Your task to perform on an android device: change notification settings in the gmail app Image 0: 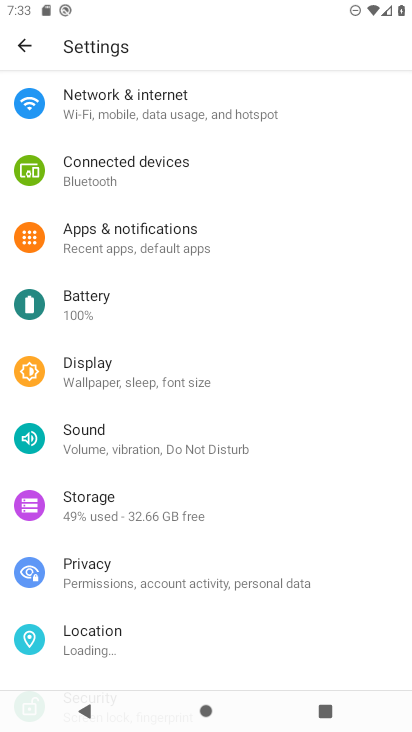
Step 0: press home button
Your task to perform on an android device: change notification settings in the gmail app Image 1: 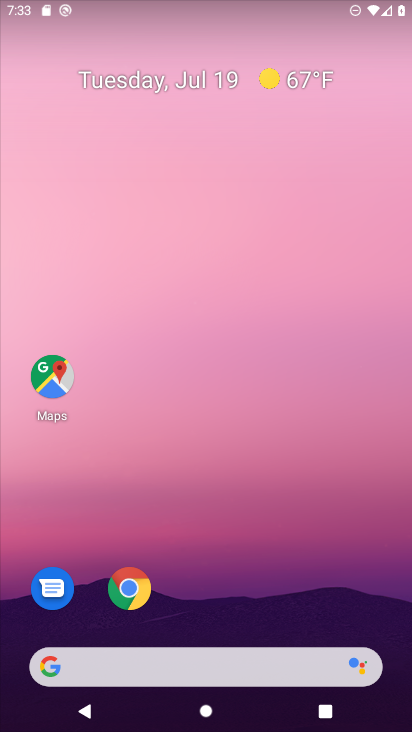
Step 1: drag from (356, 589) to (373, 82)
Your task to perform on an android device: change notification settings in the gmail app Image 2: 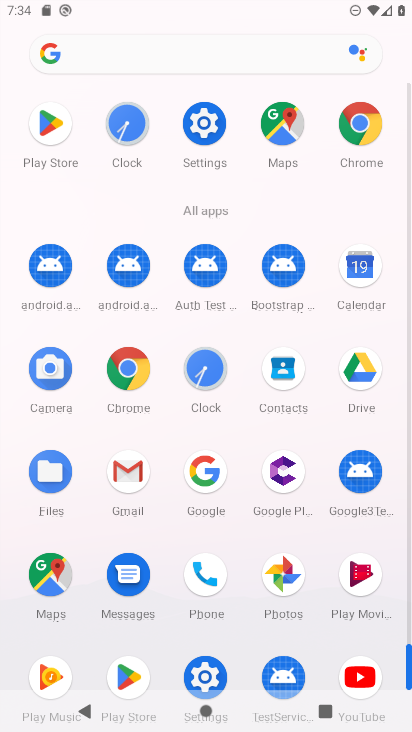
Step 2: click (129, 470)
Your task to perform on an android device: change notification settings in the gmail app Image 3: 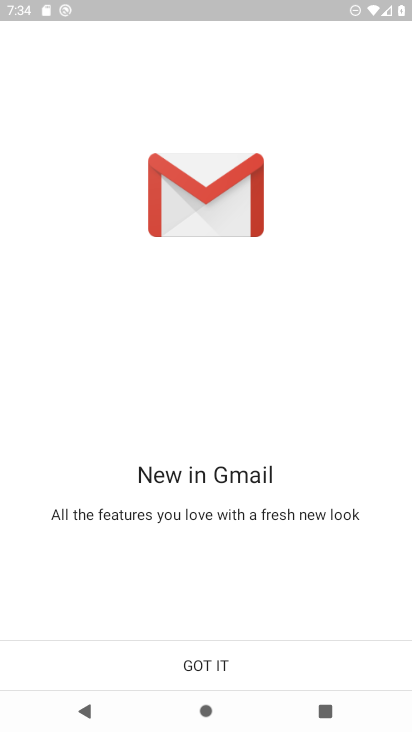
Step 3: click (191, 665)
Your task to perform on an android device: change notification settings in the gmail app Image 4: 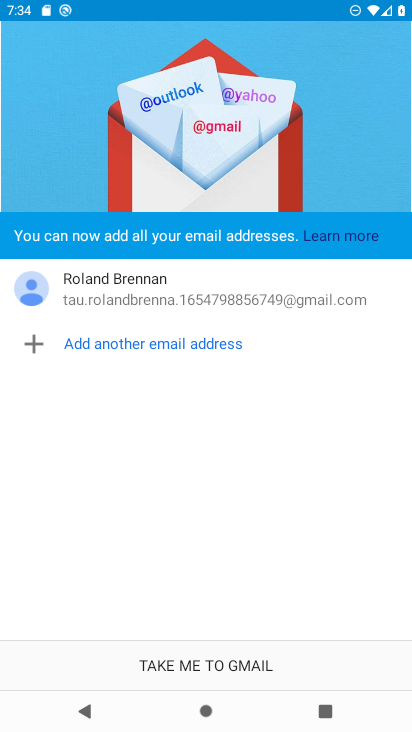
Step 4: click (191, 665)
Your task to perform on an android device: change notification settings in the gmail app Image 5: 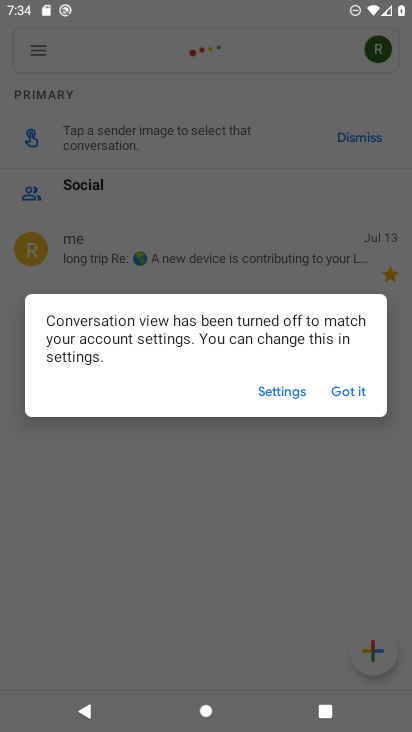
Step 5: click (351, 394)
Your task to perform on an android device: change notification settings in the gmail app Image 6: 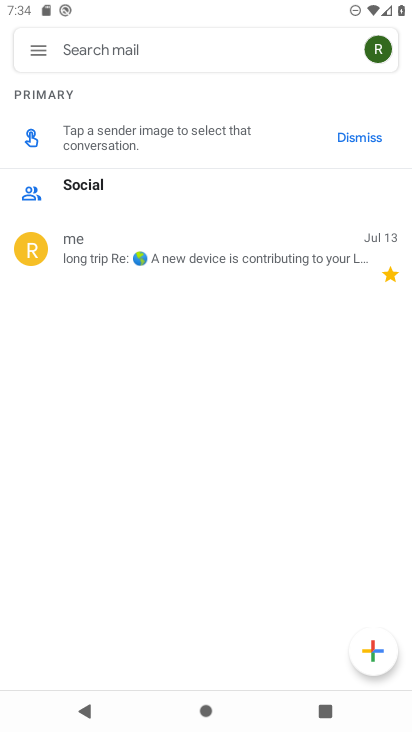
Step 6: click (38, 51)
Your task to perform on an android device: change notification settings in the gmail app Image 7: 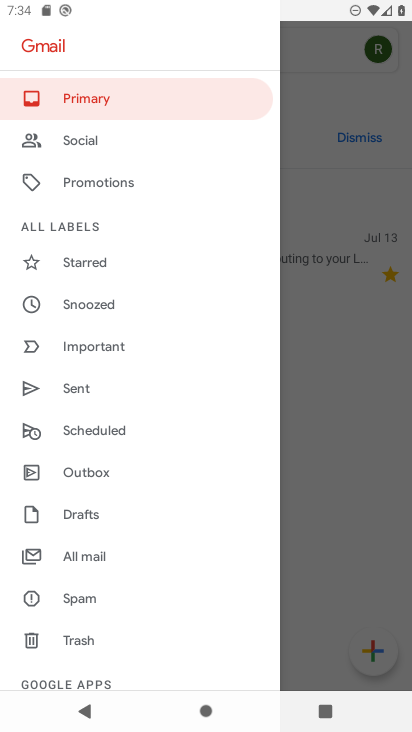
Step 7: drag from (195, 358) to (199, 312)
Your task to perform on an android device: change notification settings in the gmail app Image 8: 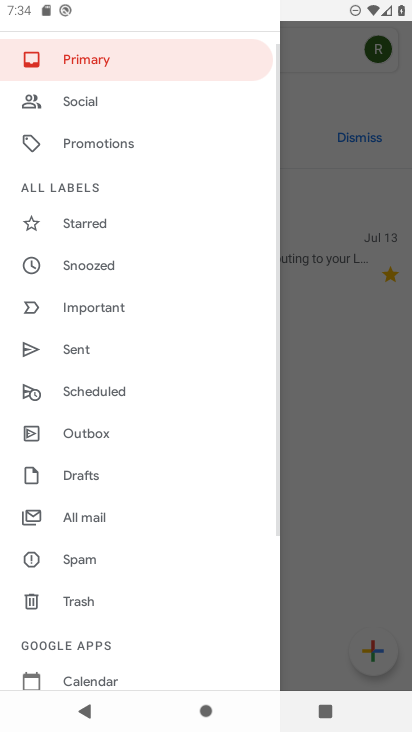
Step 8: drag from (186, 416) to (201, 328)
Your task to perform on an android device: change notification settings in the gmail app Image 9: 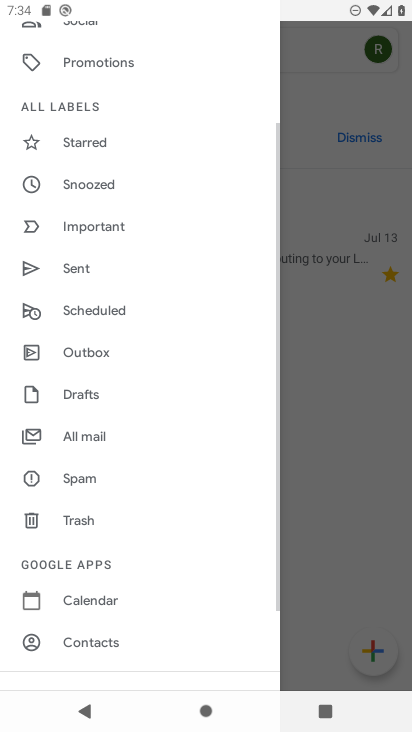
Step 9: drag from (195, 429) to (200, 343)
Your task to perform on an android device: change notification settings in the gmail app Image 10: 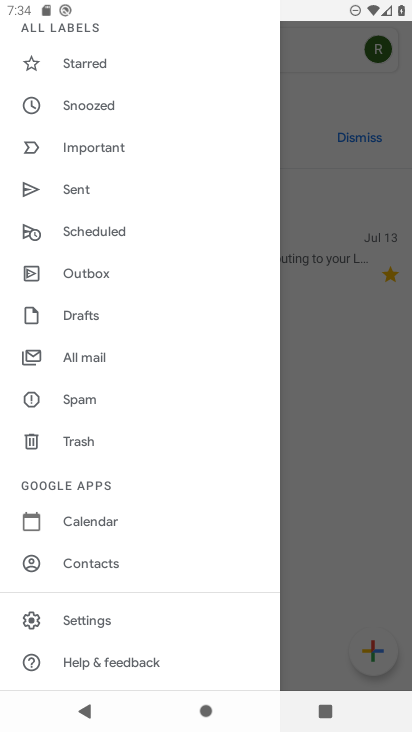
Step 10: click (172, 619)
Your task to perform on an android device: change notification settings in the gmail app Image 11: 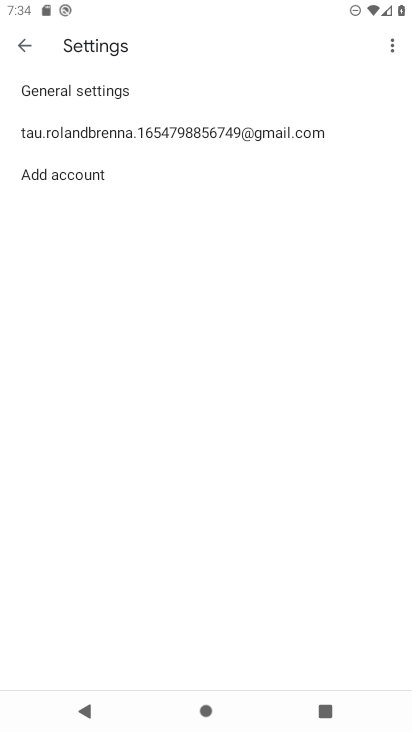
Step 11: click (254, 139)
Your task to perform on an android device: change notification settings in the gmail app Image 12: 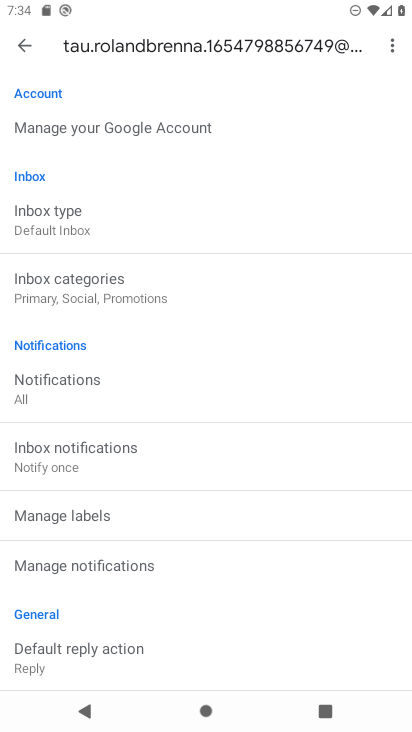
Step 12: drag from (295, 393) to (321, 219)
Your task to perform on an android device: change notification settings in the gmail app Image 13: 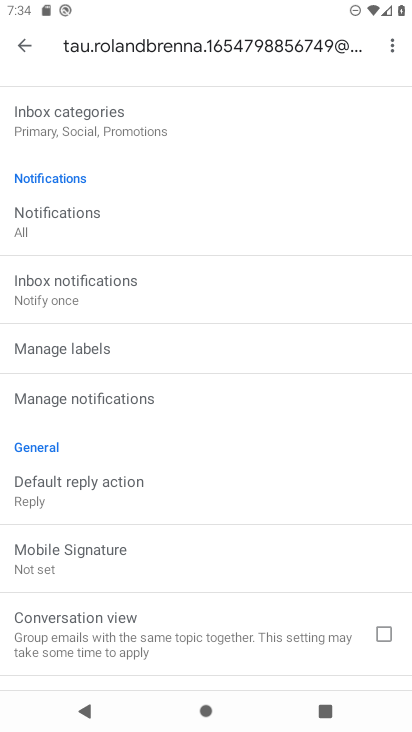
Step 13: drag from (318, 470) to (348, 310)
Your task to perform on an android device: change notification settings in the gmail app Image 14: 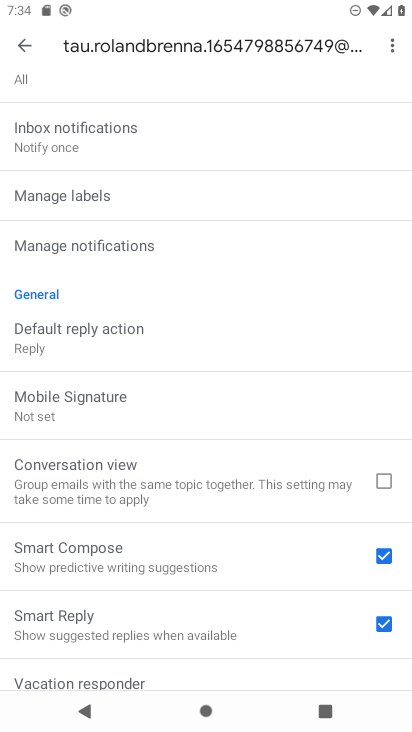
Step 14: drag from (289, 180) to (289, 295)
Your task to perform on an android device: change notification settings in the gmail app Image 15: 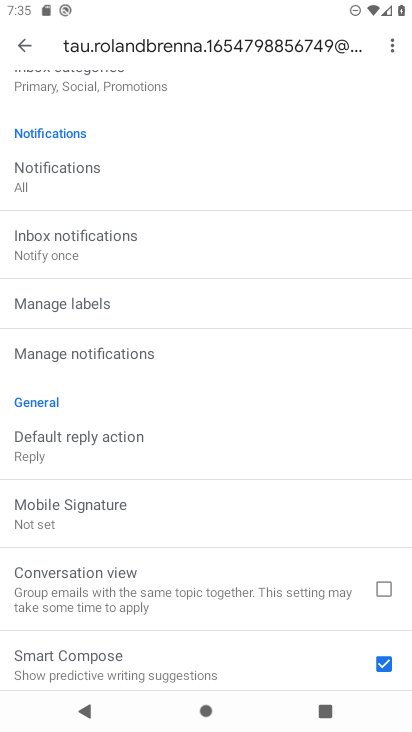
Step 15: click (130, 172)
Your task to perform on an android device: change notification settings in the gmail app Image 16: 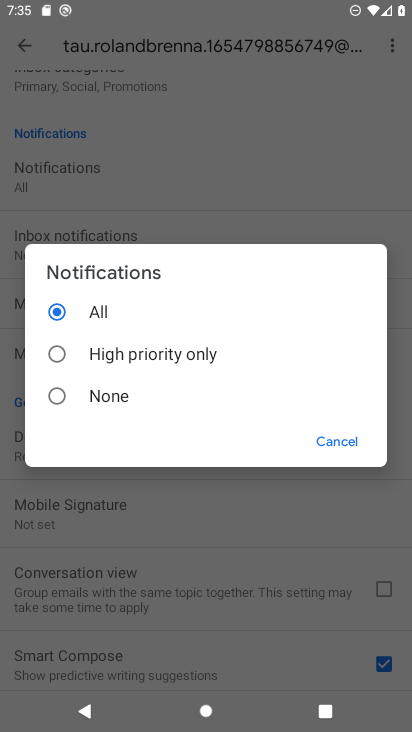
Step 16: click (157, 361)
Your task to perform on an android device: change notification settings in the gmail app Image 17: 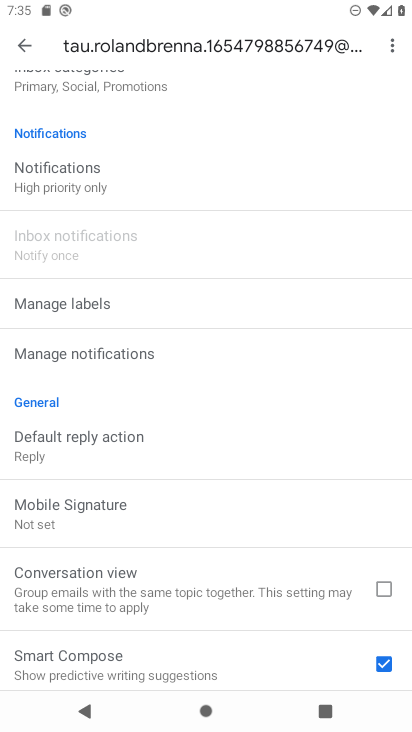
Step 17: task complete